Your task to perform on an android device: Go to Google maps Image 0: 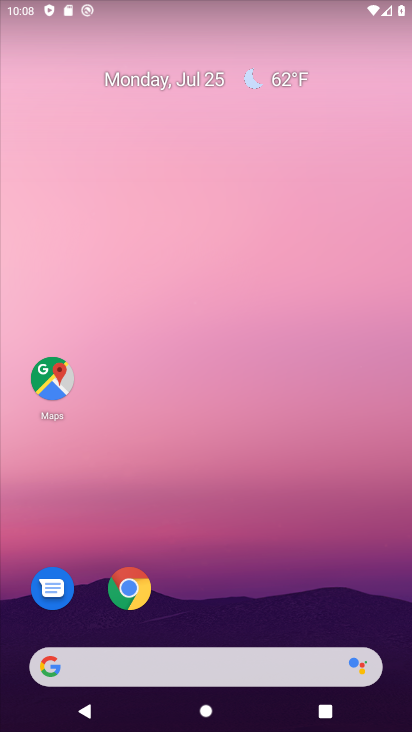
Step 0: drag from (259, 580) to (154, 153)
Your task to perform on an android device: Go to Google maps Image 1: 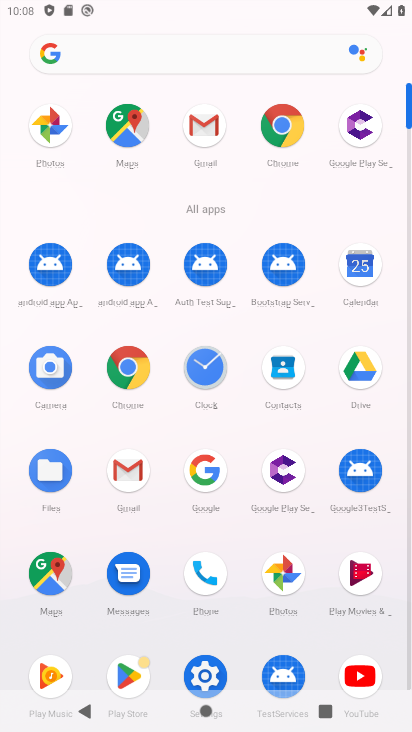
Step 1: click (65, 585)
Your task to perform on an android device: Go to Google maps Image 2: 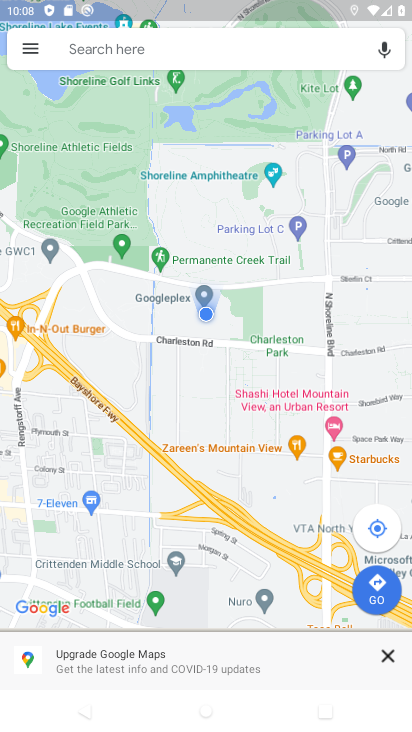
Step 2: task complete